Your task to perform on an android device: turn vacation reply on in the gmail app Image 0: 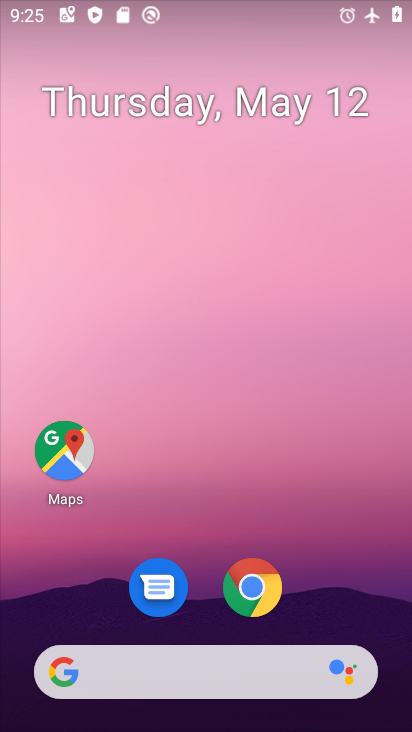
Step 0: drag from (303, 527) to (382, 137)
Your task to perform on an android device: turn vacation reply on in the gmail app Image 1: 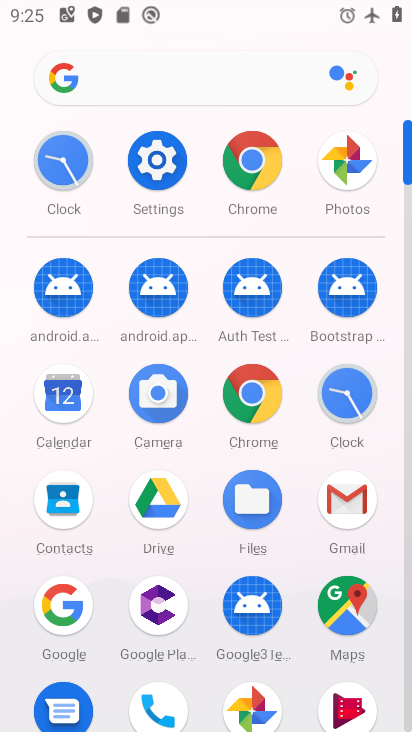
Step 1: click (351, 498)
Your task to perform on an android device: turn vacation reply on in the gmail app Image 2: 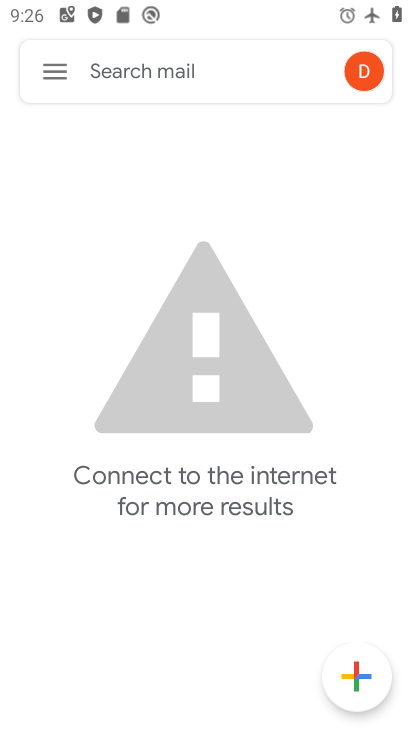
Step 2: click (46, 68)
Your task to perform on an android device: turn vacation reply on in the gmail app Image 3: 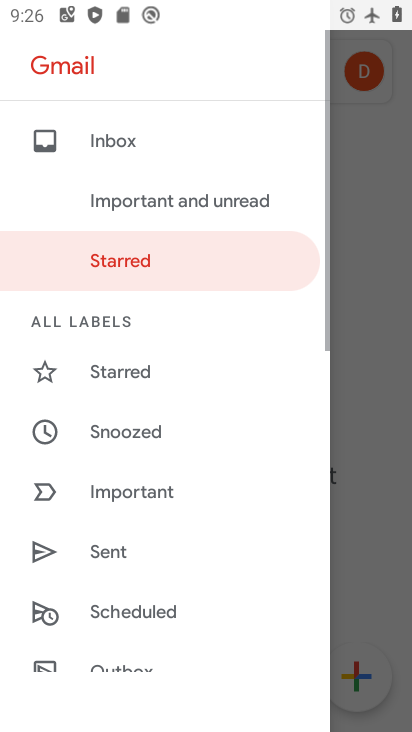
Step 3: drag from (198, 618) to (272, 168)
Your task to perform on an android device: turn vacation reply on in the gmail app Image 4: 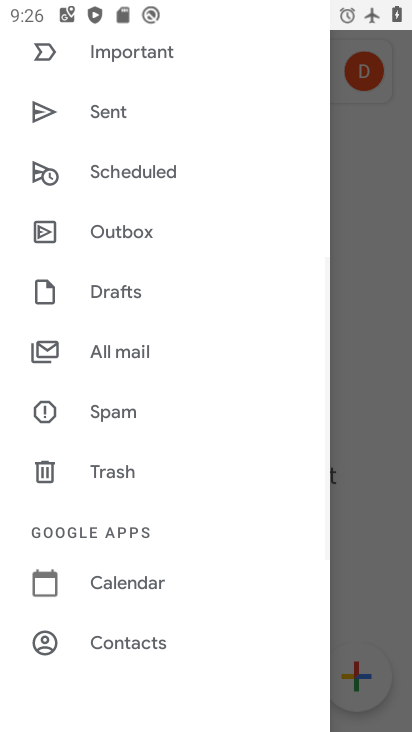
Step 4: drag from (153, 611) to (235, 343)
Your task to perform on an android device: turn vacation reply on in the gmail app Image 5: 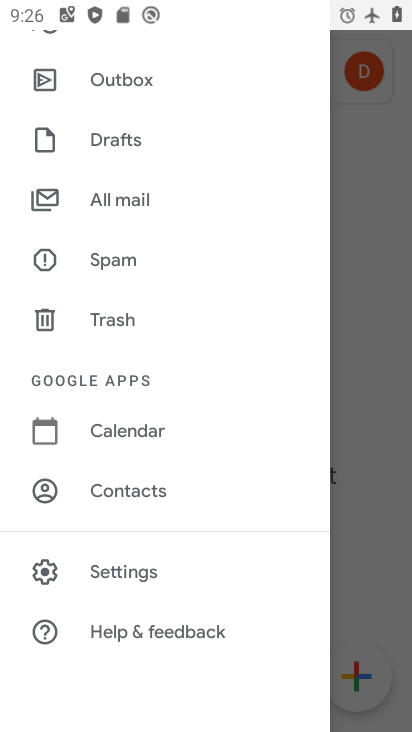
Step 5: click (101, 572)
Your task to perform on an android device: turn vacation reply on in the gmail app Image 6: 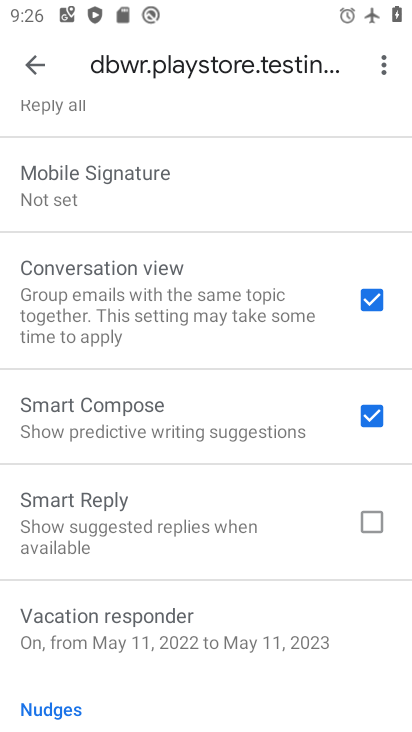
Step 6: drag from (196, 618) to (262, 178)
Your task to perform on an android device: turn vacation reply on in the gmail app Image 7: 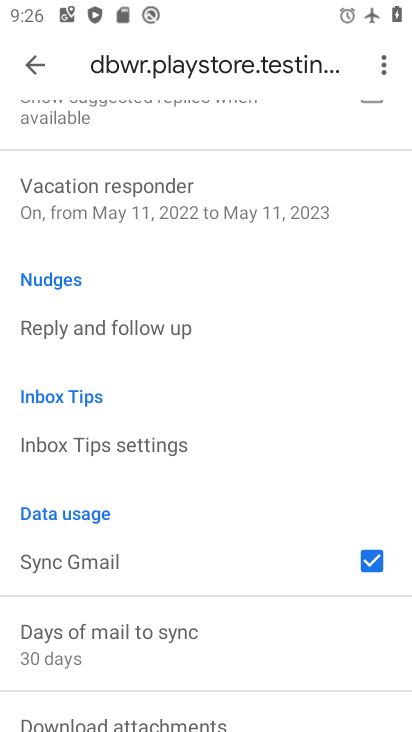
Step 7: drag from (179, 642) to (268, 142)
Your task to perform on an android device: turn vacation reply on in the gmail app Image 8: 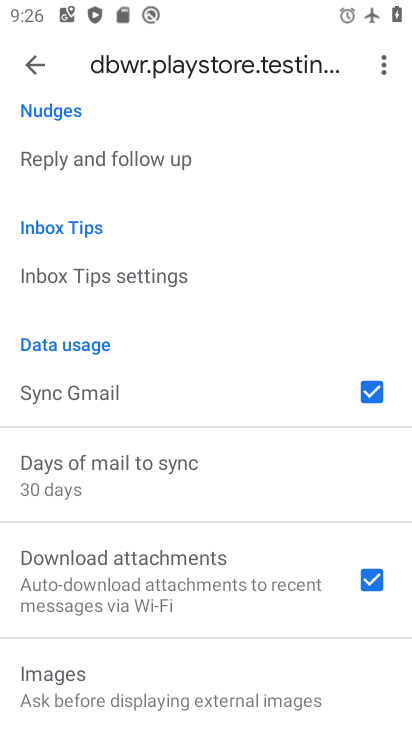
Step 8: drag from (233, 174) to (162, 614)
Your task to perform on an android device: turn vacation reply on in the gmail app Image 9: 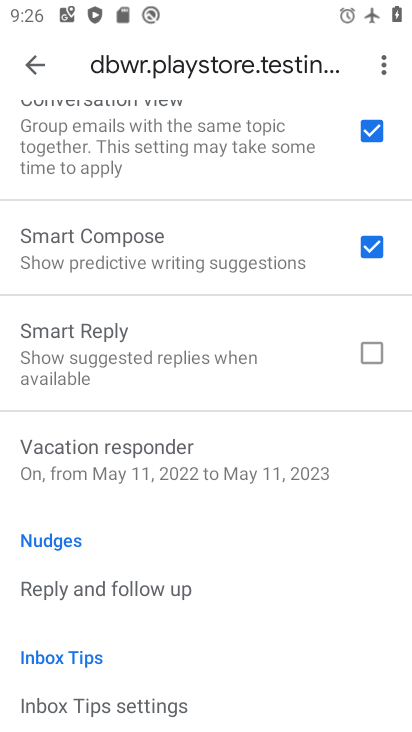
Step 9: click (147, 466)
Your task to perform on an android device: turn vacation reply on in the gmail app Image 10: 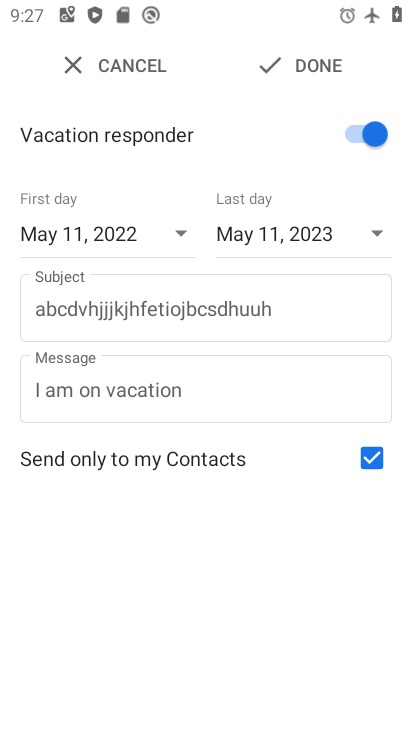
Step 10: task complete